Your task to perform on an android device: Show me popular videos on Youtube Image 0: 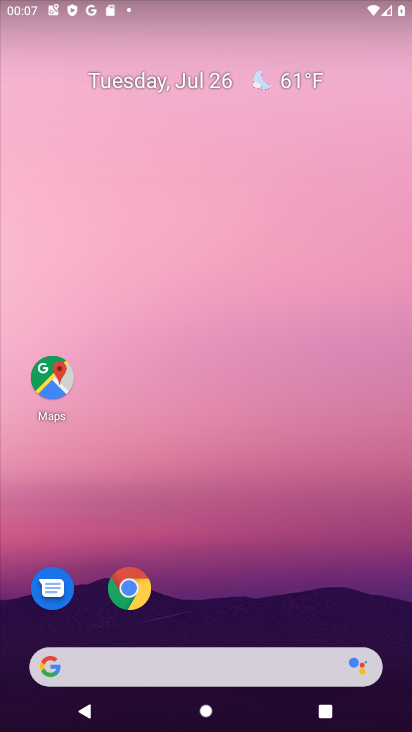
Step 0: press home button
Your task to perform on an android device: Show me popular videos on Youtube Image 1: 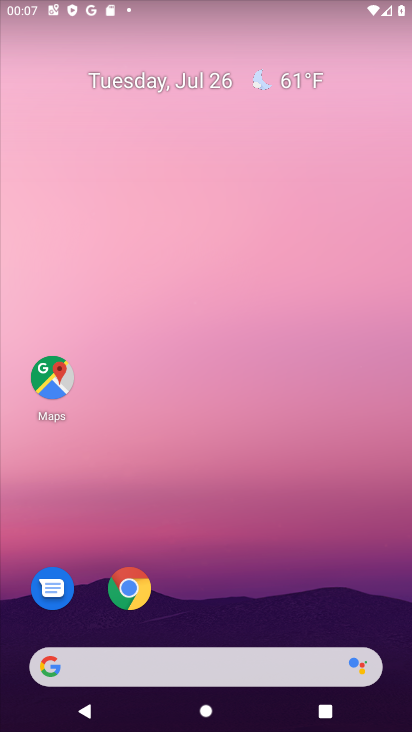
Step 1: drag from (217, 625) to (265, 6)
Your task to perform on an android device: Show me popular videos on Youtube Image 2: 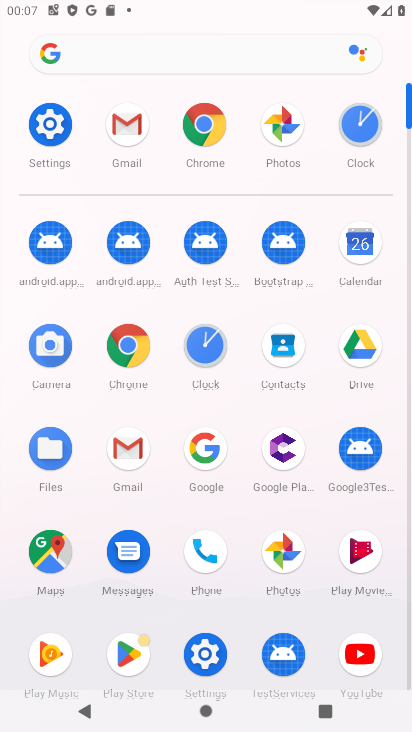
Step 2: click (355, 650)
Your task to perform on an android device: Show me popular videos on Youtube Image 3: 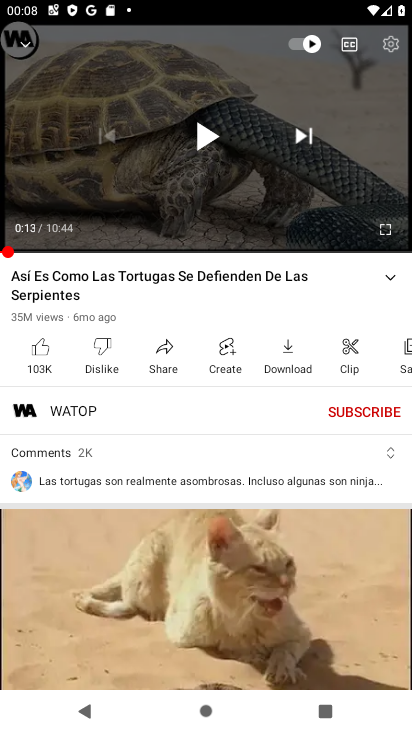
Step 3: press back button
Your task to perform on an android device: Show me popular videos on Youtube Image 4: 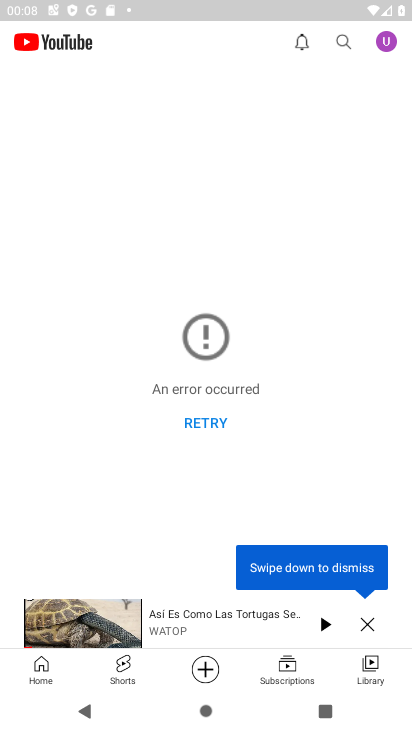
Step 4: click (362, 621)
Your task to perform on an android device: Show me popular videos on Youtube Image 5: 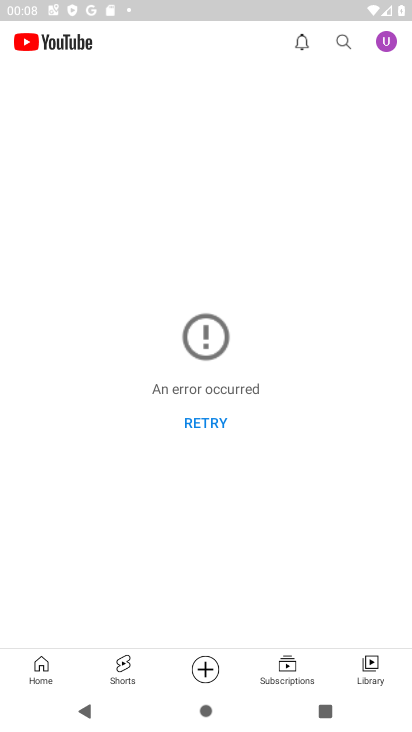
Step 5: click (32, 668)
Your task to perform on an android device: Show me popular videos on Youtube Image 6: 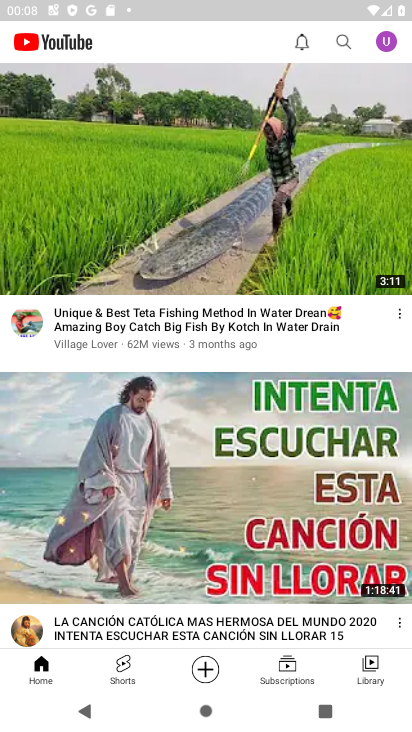
Step 6: click (50, 80)
Your task to perform on an android device: Show me popular videos on Youtube Image 7: 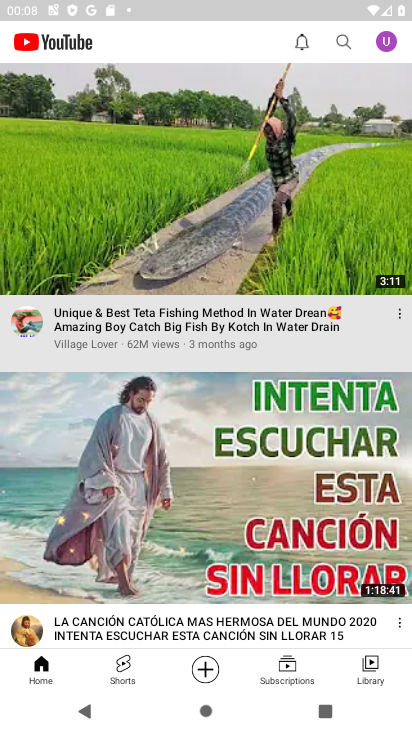
Step 7: drag from (48, 81) to (150, 430)
Your task to perform on an android device: Show me popular videos on Youtube Image 8: 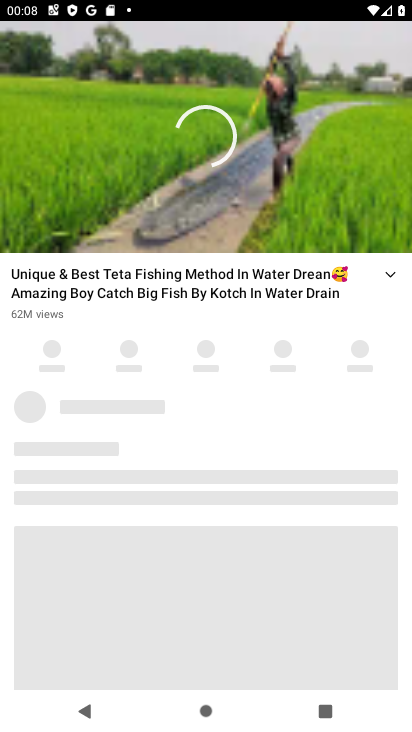
Step 8: press back button
Your task to perform on an android device: Show me popular videos on Youtube Image 9: 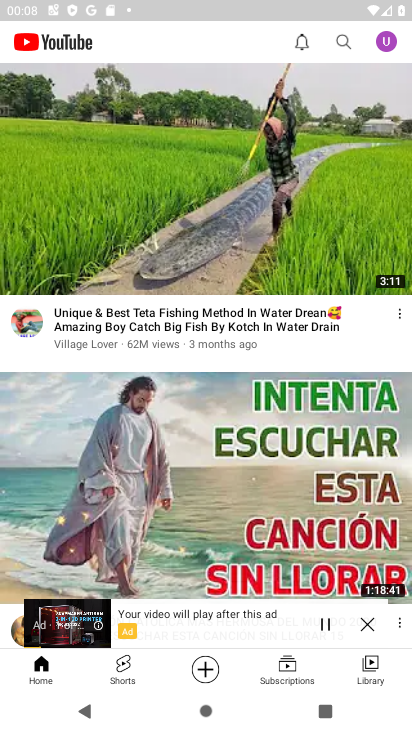
Step 9: click (364, 620)
Your task to perform on an android device: Show me popular videos on Youtube Image 10: 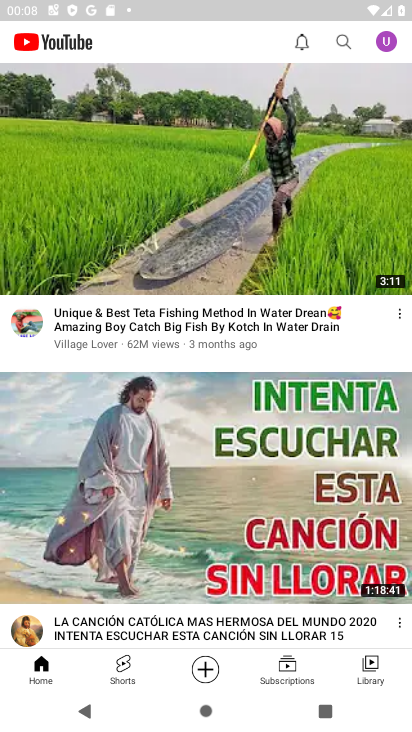
Step 10: drag from (104, 140) to (123, 572)
Your task to perform on an android device: Show me popular videos on Youtube Image 11: 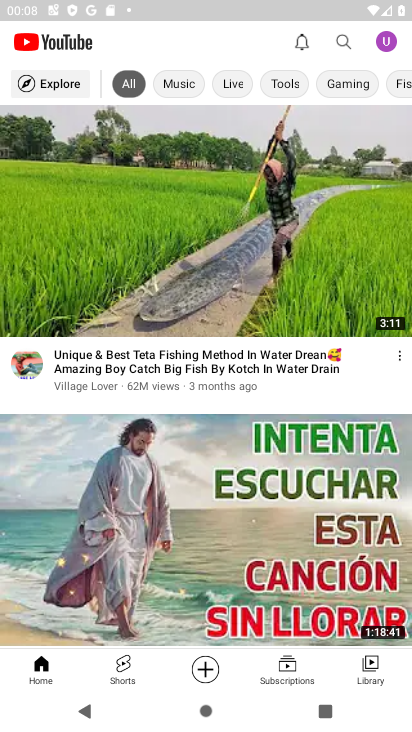
Step 11: click (34, 78)
Your task to perform on an android device: Show me popular videos on Youtube Image 12: 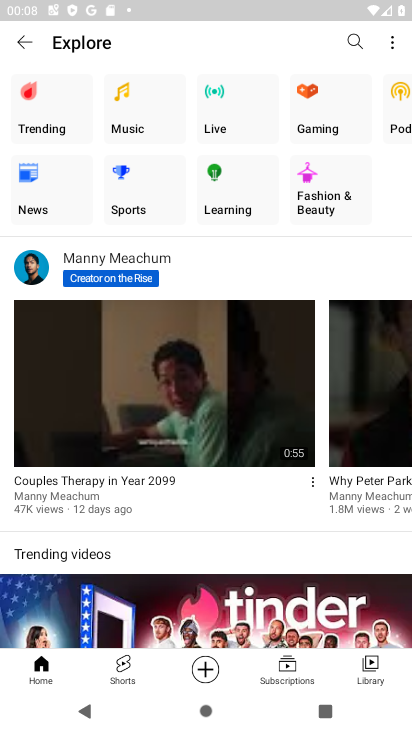
Step 12: click (29, 97)
Your task to perform on an android device: Show me popular videos on Youtube Image 13: 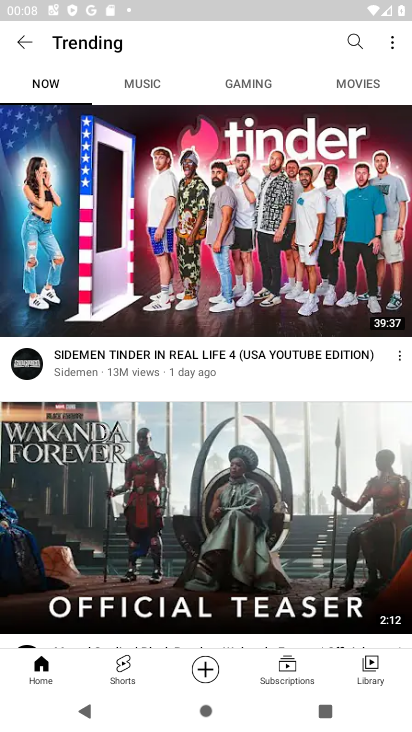
Step 13: drag from (219, 517) to (223, 103)
Your task to perform on an android device: Show me popular videos on Youtube Image 14: 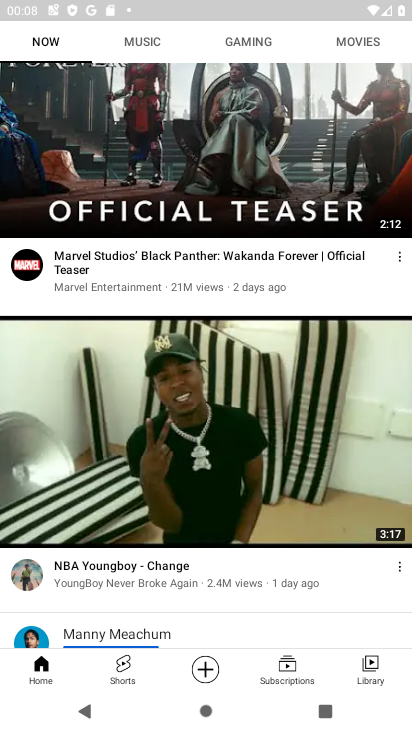
Step 14: click (219, 57)
Your task to perform on an android device: Show me popular videos on Youtube Image 15: 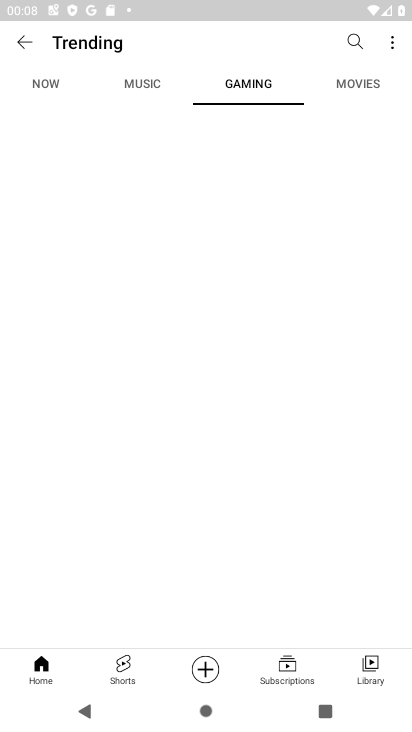
Step 15: task complete